Your task to perform on an android device: Go to wifi settings Image 0: 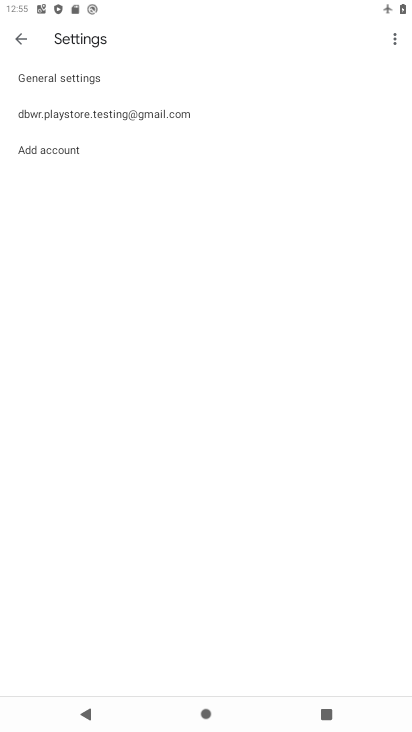
Step 0: press home button
Your task to perform on an android device: Go to wifi settings Image 1: 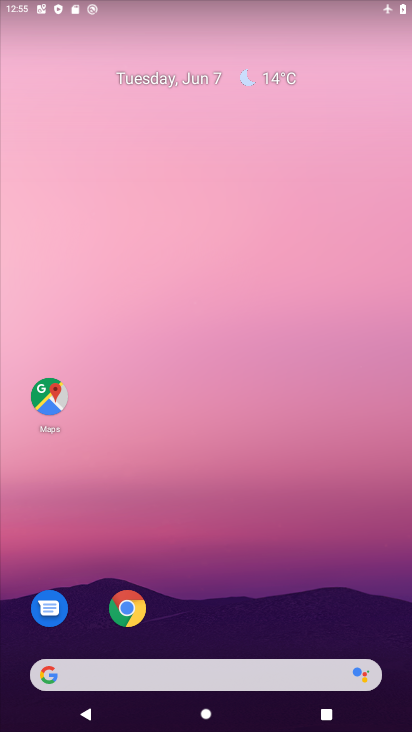
Step 1: drag from (325, 602) to (236, 101)
Your task to perform on an android device: Go to wifi settings Image 2: 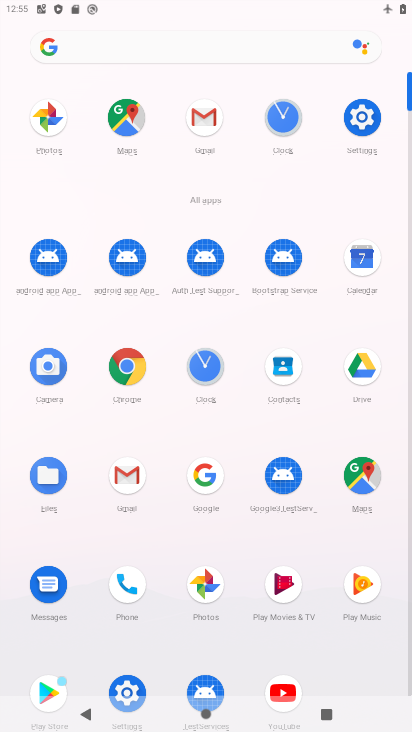
Step 2: click (374, 103)
Your task to perform on an android device: Go to wifi settings Image 3: 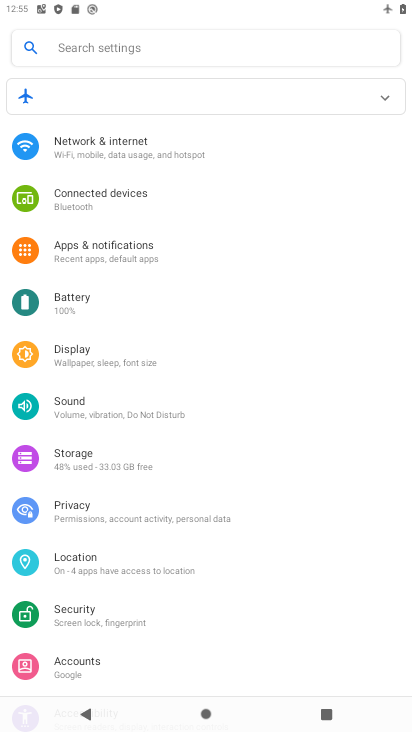
Step 3: click (90, 150)
Your task to perform on an android device: Go to wifi settings Image 4: 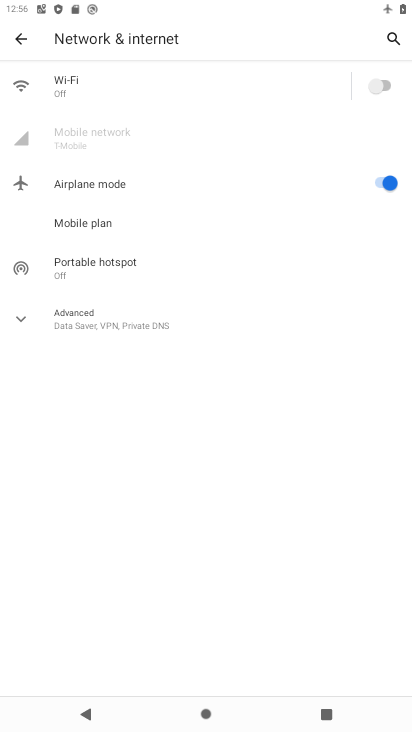
Step 4: click (294, 75)
Your task to perform on an android device: Go to wifi settings Image 5: 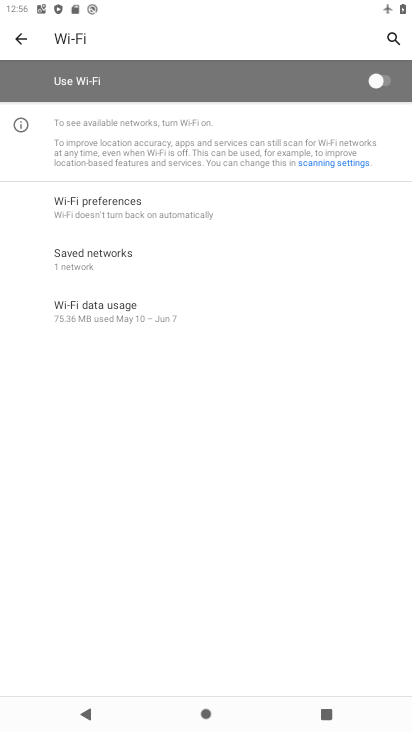
Step 5: click (394, 81)
Your task to perform on an android device: Go to wifi settings Image 6: 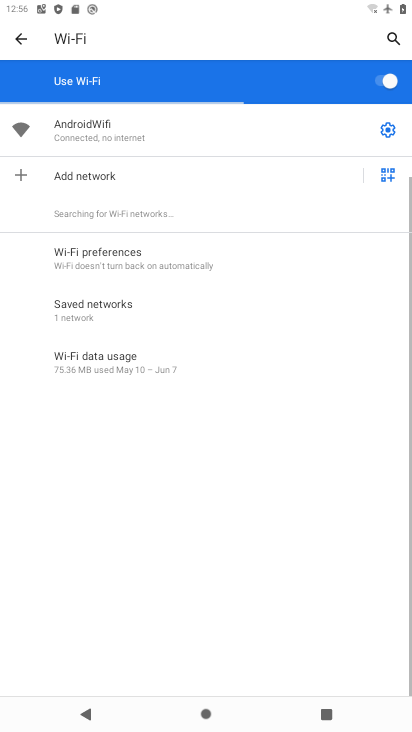
Step 6: click (388, 131)
Your task to perform on an android device: Go to wifi settings Image 7: 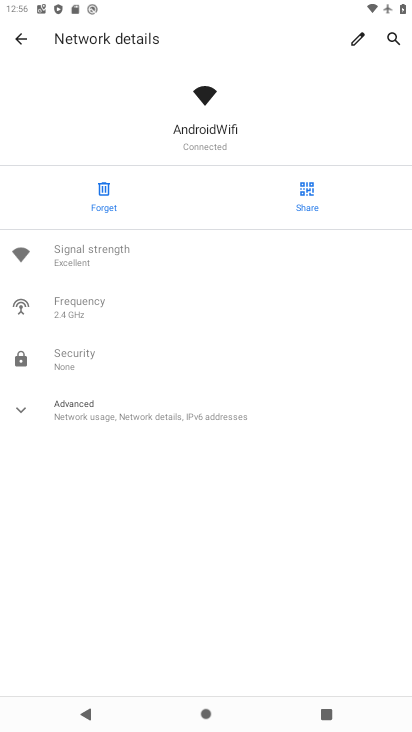
Step 7: task complete